Your task to perform on an android device: change notifications settings Image 0: 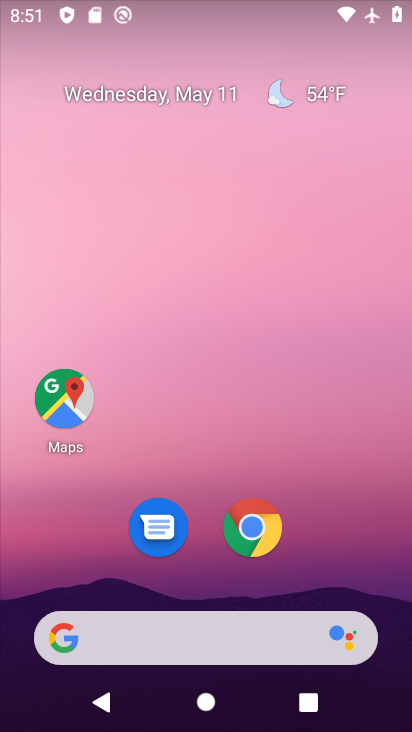
Step 0: drag from (333, 567) to (325, 251)
Your task to perform on an android device: change notifications settings Image 1: 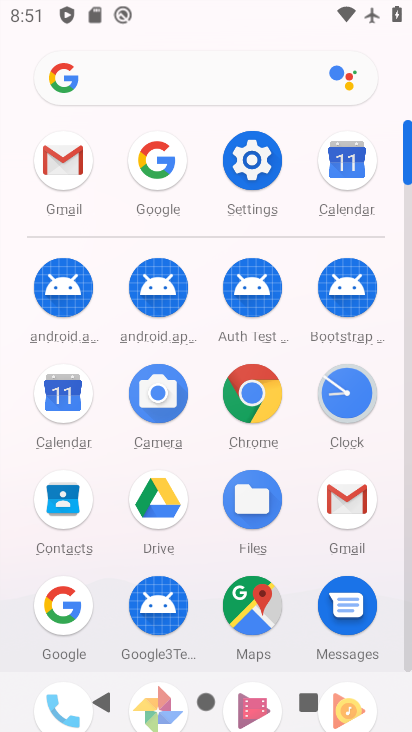
Step 1: click (229, 163)
Your task to perform on an android device: change notifications settings Image 2: 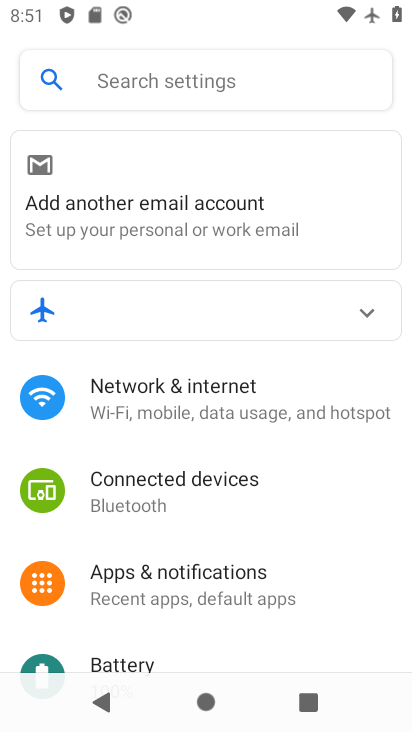
Step 2: click (211, 578)
Your task to perform on an android device: change notifications settings Image 3: 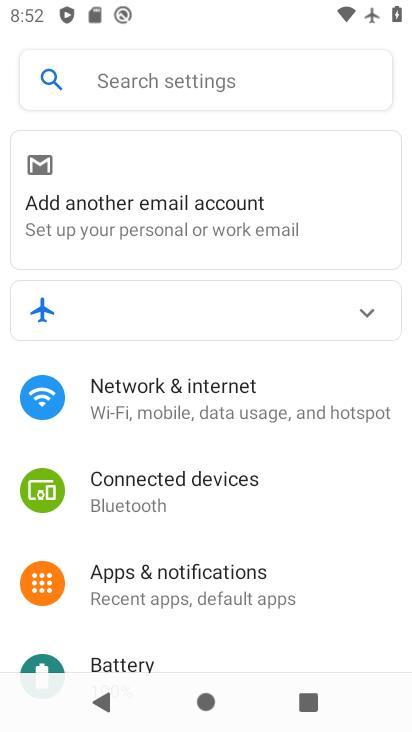
Step 3: click (217, 586)
Your task to perform on an android device: change notifications settings Image 4: 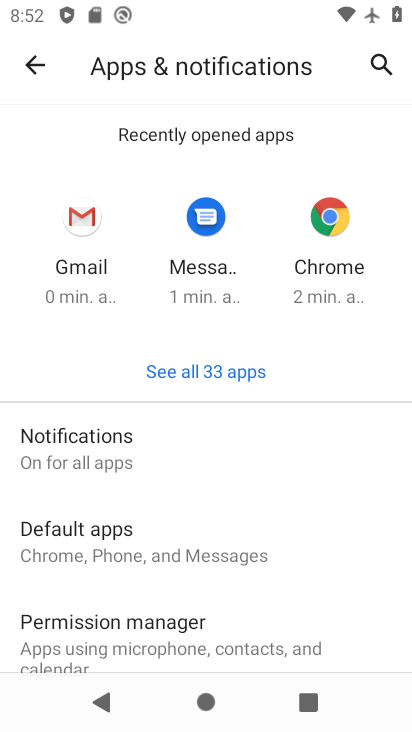
Step 4: click (177, 457)
Your task to perform on an android device: change notifications settings Image 5: 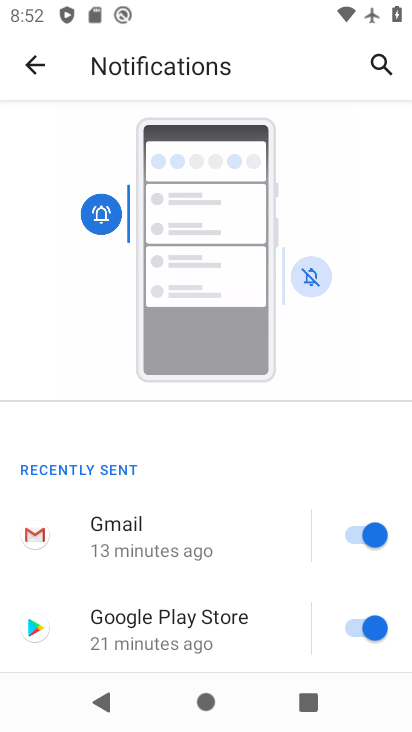
Step 5: click (377, 537)
Your task to perform on an android device: change notifications settings Image 6: 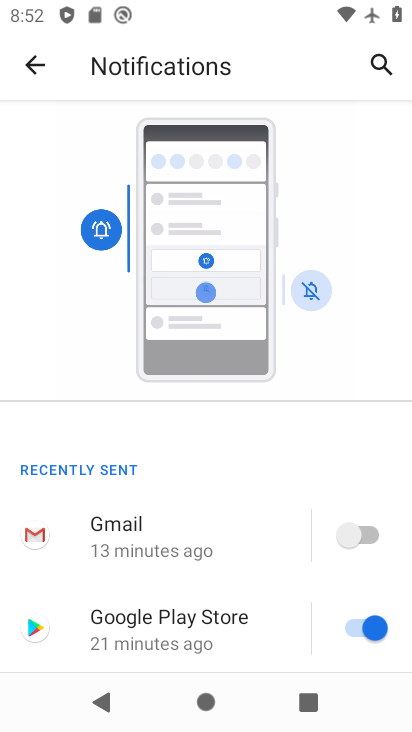
Step 6: task complete